Your task to perform on an android device: Open privacy settings Image 0: 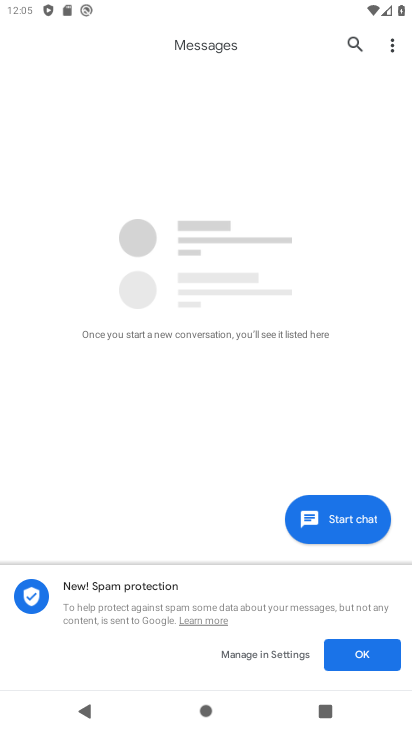
Step 0: press home button
Your task to perform on an android device: Open privacy settings Image 1: 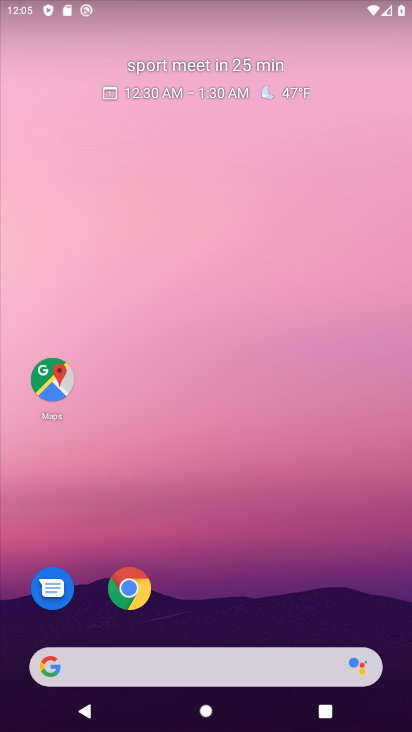
Step 1: drag from (264, 566) to (288, 4)
Your task to perform on an android device: Open privacy settings Image 2: 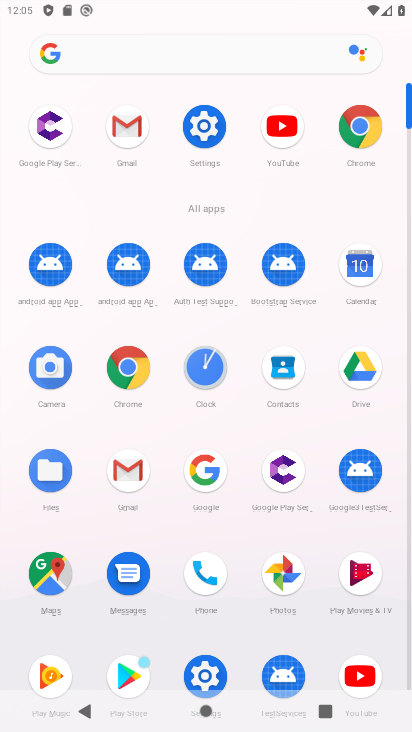
Step 2: click (206, 668)
Your task to perform on an android device: Open privacy settings Image 3: 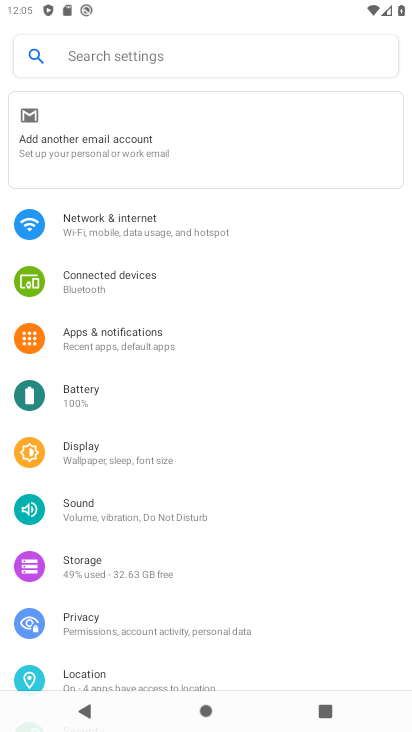
Step 3: click (179, 622)
Your task to perform on an android device: Open privacy settings Image 4: 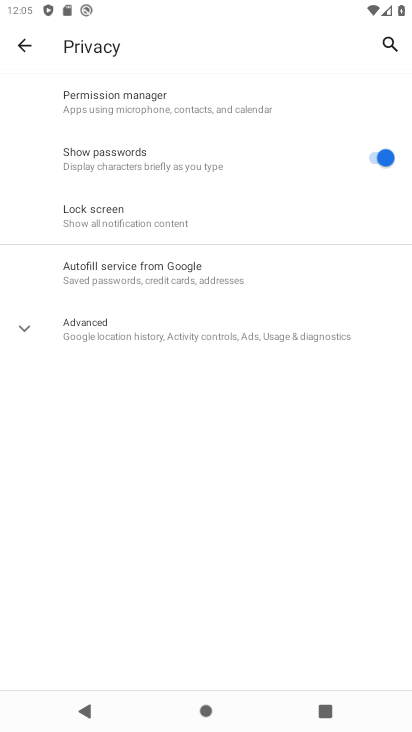
Step 4: task complete